Your task to perform on an android device: Open CNN.com Image 0: 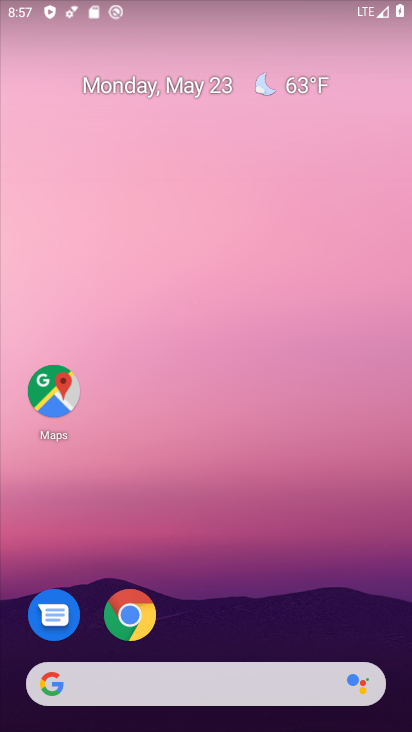
Step 0: drag from (185, 597) to (281, 125)
Your task to perform on an android device: Open CNN.com Image 1: 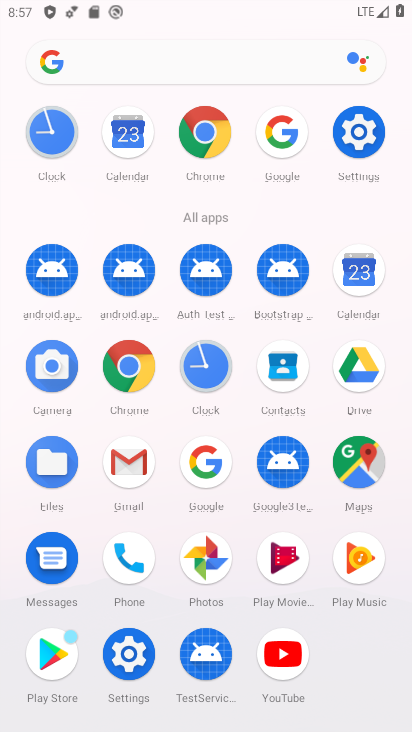
Step 1: click (206, 461)
Your task to perform on an android device: Open CNN.com Image 2: 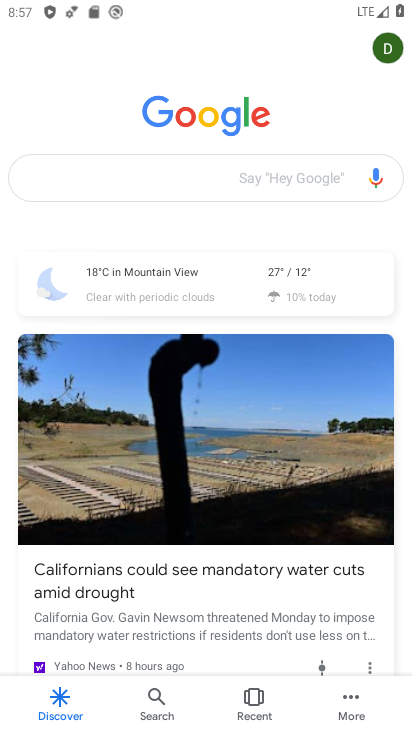
Step 2: click (212, 181)
Your task to perform on an android device: Open CNN.com Image 3: 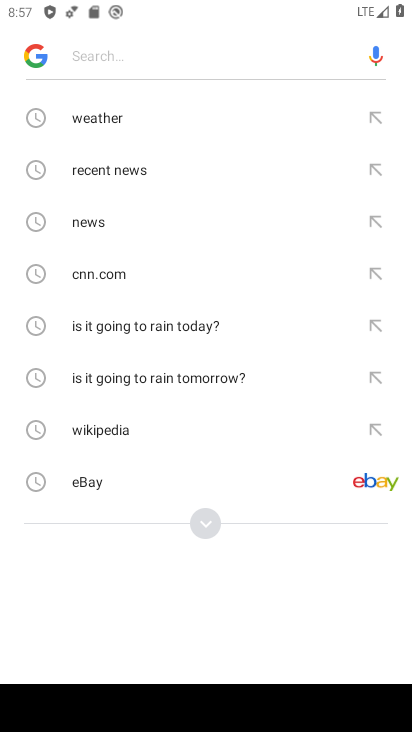
Step 3: click (133, 280)
Your task to perform on an android device: Open CNN.com Image 4: 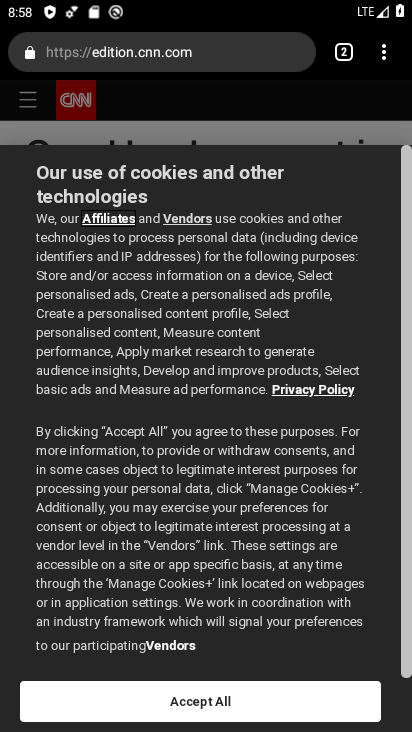
Step 4: task complete